Your task to perform on an android device: Open Google Chrome and click the shortcut for Amazon.com Image 0: 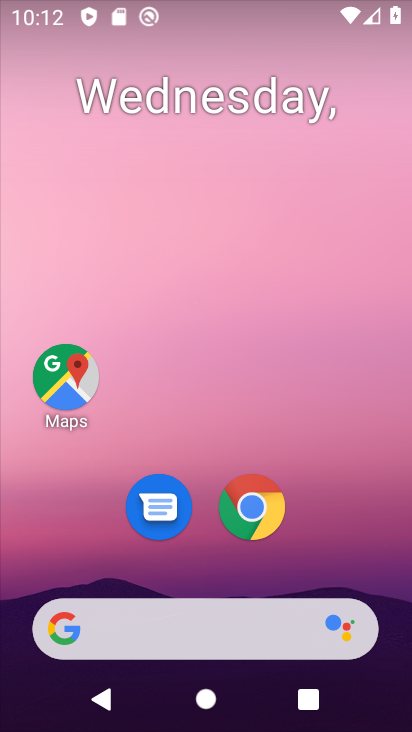
Step 0: click (331, 211)
Your task to perform on an android device: Open Google Chrome and click the shortcut for Amazon.com Image 1: 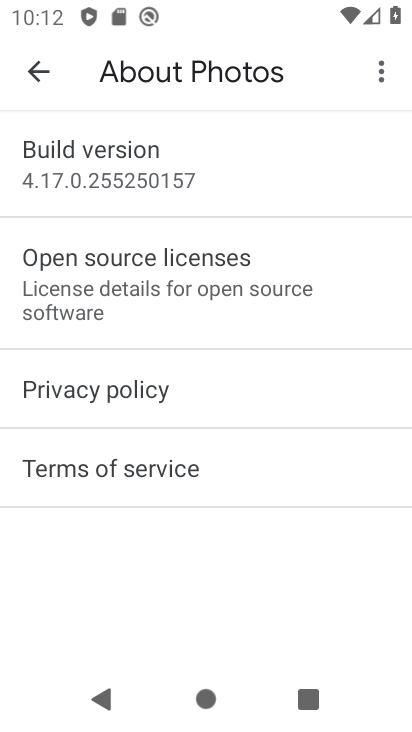
Step 1: press home button
Your task to perform on an android device: Open Google Chrome and click the shortcut for Amazon.com Image 2: 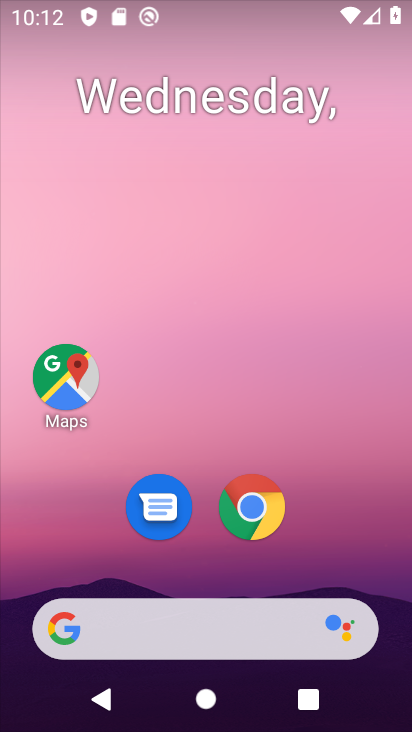
Step 2: drag from (335, 569) to (327, 275)
Your task to perform on an android device: Open Google Chrome and click the shortcut for Amazon.com Image 3: 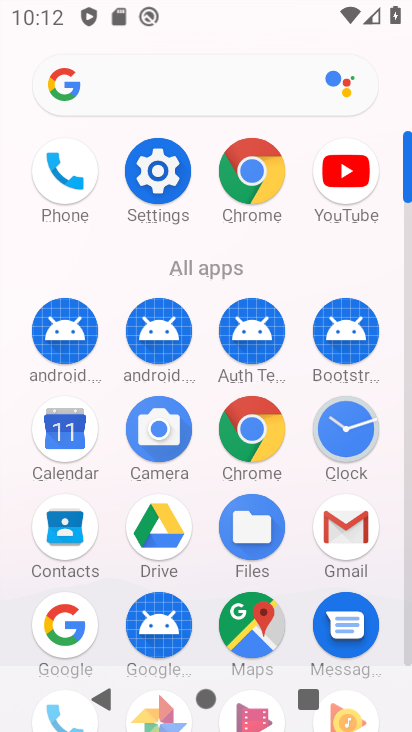
Step 3: click (239, 164)
Your task to perform on an android device: Open Google Chrome and click the shortcut for Amazon.com Image 4: 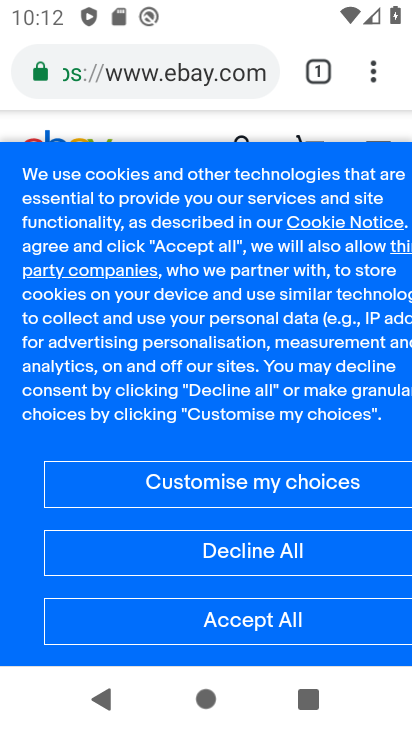
Step 4: click (345, 71)
Your task to perform on an android device: Open Google Chrome and click the shortcut for Amazon.com Image 5: 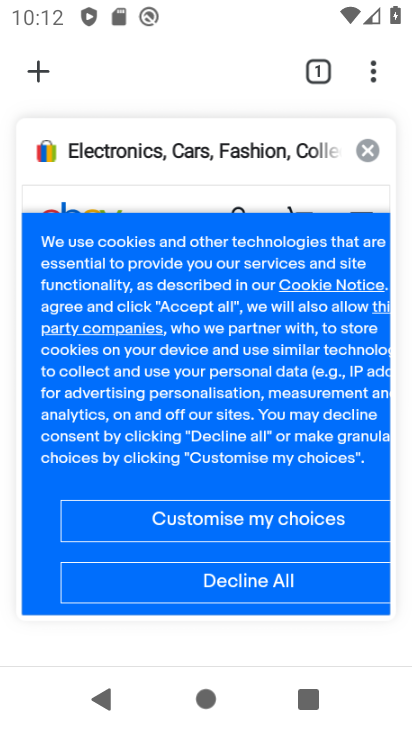
Step 5: click (37, 70)
Your task to perform on an android device: Open Google Chrome and click the shortcut for Amazon.com Image 6: 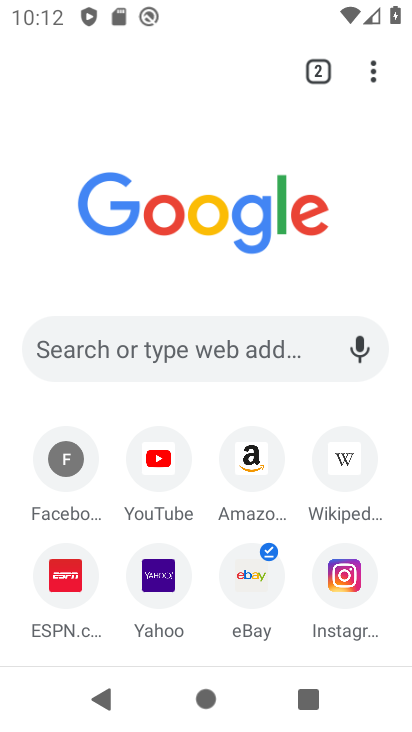
Step 6: click (243, 456)
Your task to perform on an android device: Open Google Chrome and click the shortcut for Amazon.com Image 7: 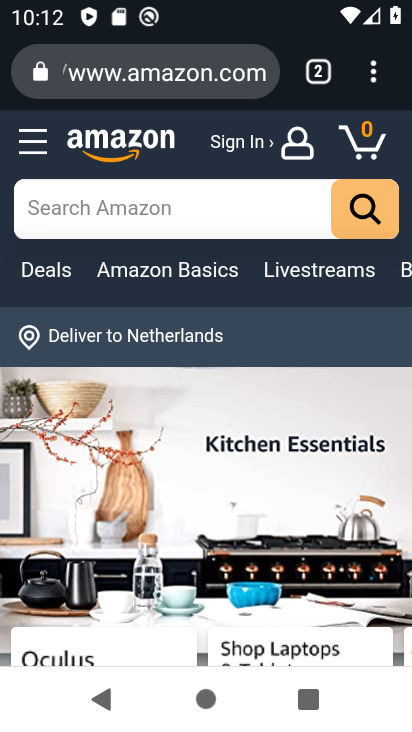
Step 7: task complete